Your task to perform on an android device: delete browsing data in the chrome app Image 0: 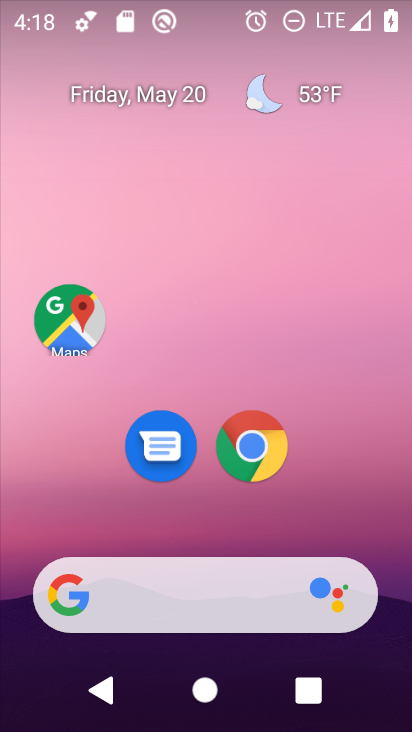
Step 0: drag from (310, 479) to (285, 65)
Your task to perform on an android device: delete browsing data in the chrome app Image 1: 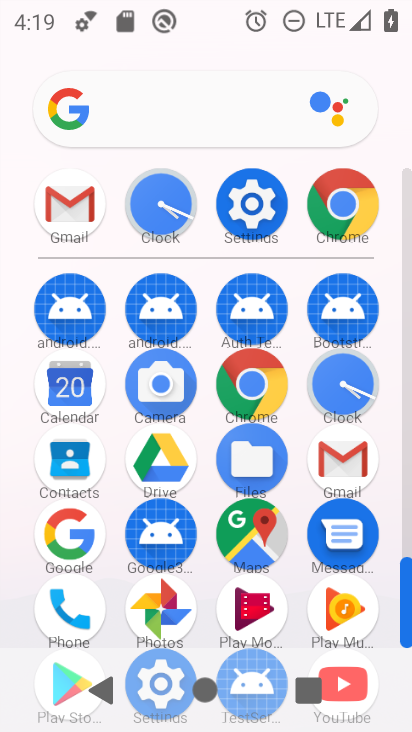
Step 1: click (358, 204)
Your task to perform on an android device: delete browsing data in the chrome app Image 2: 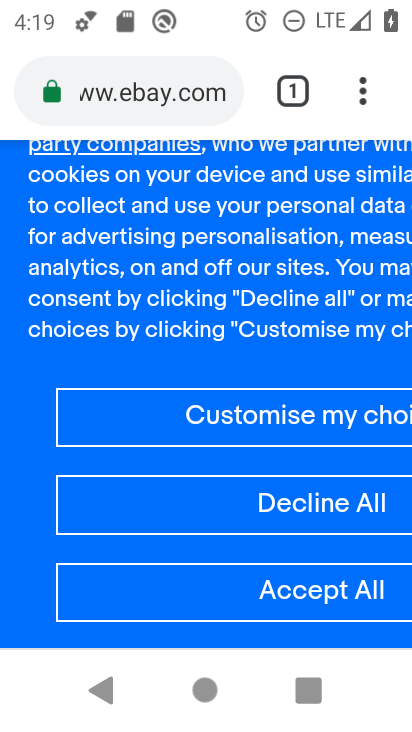
Step 2: drag from (357, 75) to (108, 239)
Your task to perform on an android device: delete browsing data in the chrome app Image 3: 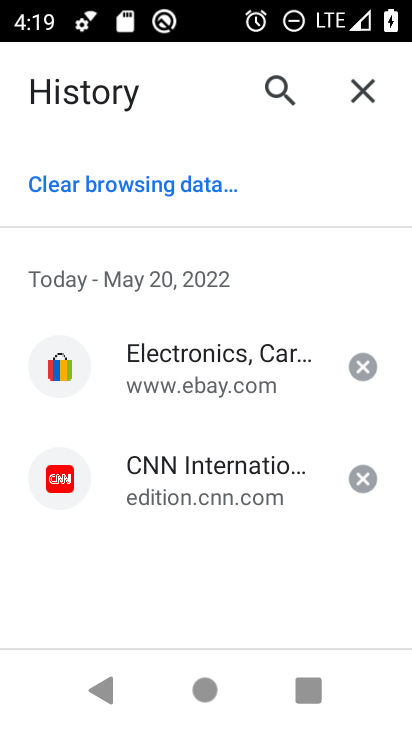
Step 3: click (131, 188)
Your task to perform on an android device: delete browsing data in the chrome app Image 4: 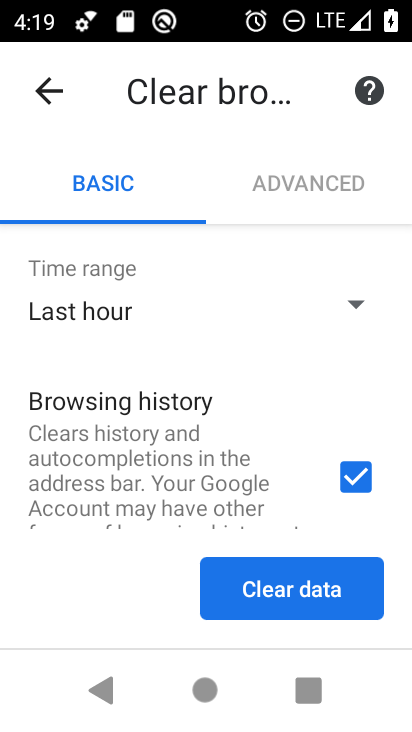
Step 4: click (312, 596)
Your task to perform on an android device: delete browsing data in the chrome app Image 5: 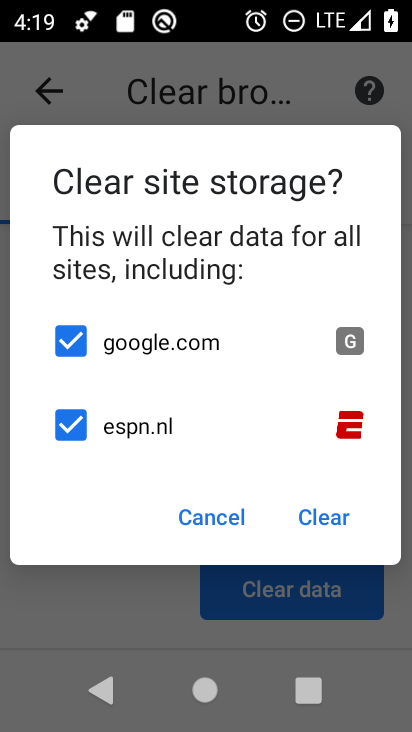
Step 5: click (310, 526)
Your task to perform on an android device: delete browsing data in the chrome app Image 6: 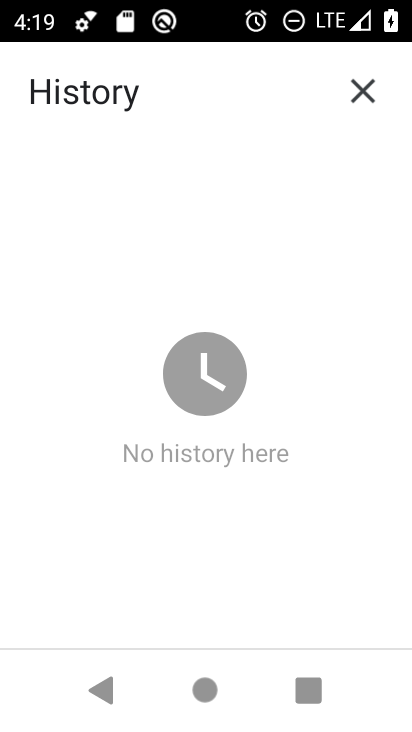
Step 6: task complete